Your task to perform on an android device: Open settings on Google Maps Image 0: 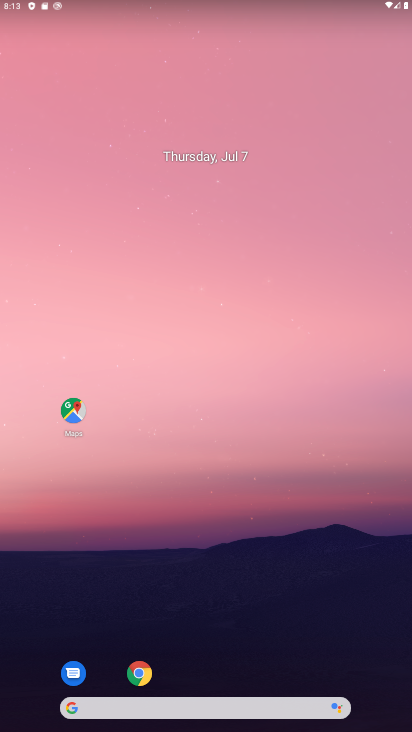
Step 0: drag from (242, 686) to (154, 111)
Your task to perform on an android device: Open settings on Google Maps Image 1: 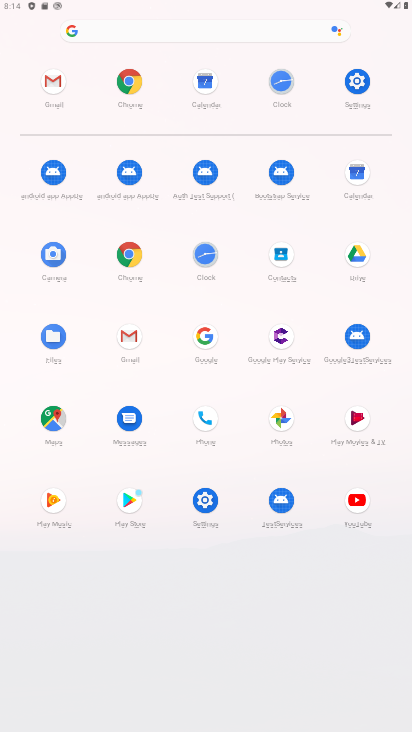
Step 1: click (60, 413)
Your task to perform on an android device: Open settings on Google Maps Image 2: 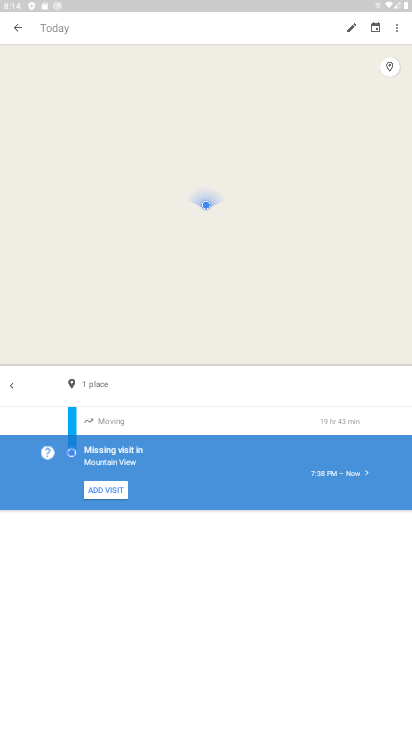
Step 2: click (23, 30)
Your task to perform on an android device: Open settings on Google Maps Image 3: 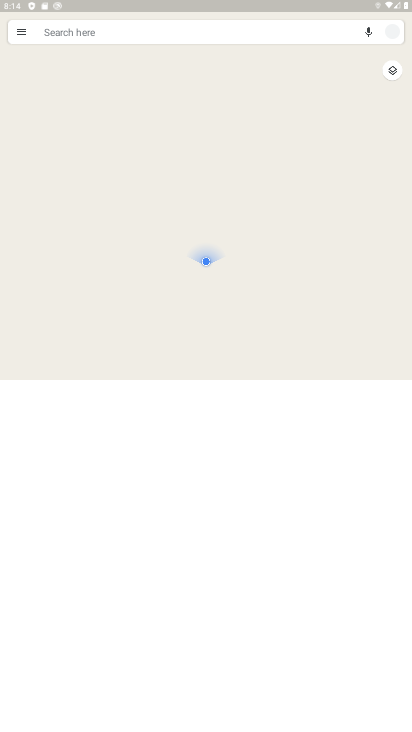
Step 3: click (22, 31)
Your task to perform on an android device: Open settings on Google Maps Image 4: 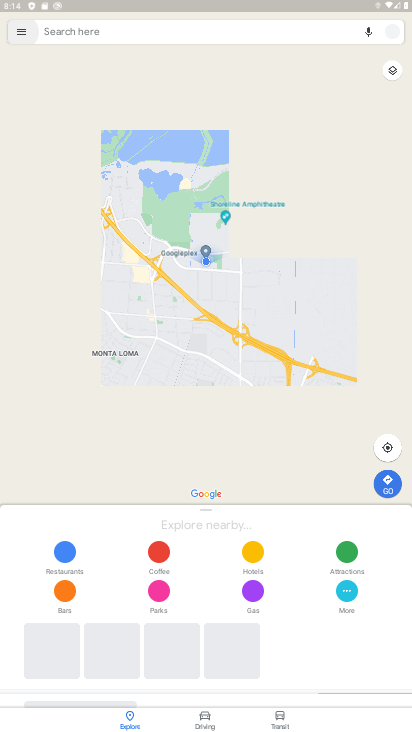
Step 4: click (20, 32)
Your task to perform on an android device: Open settings on Google Maps Image 5: 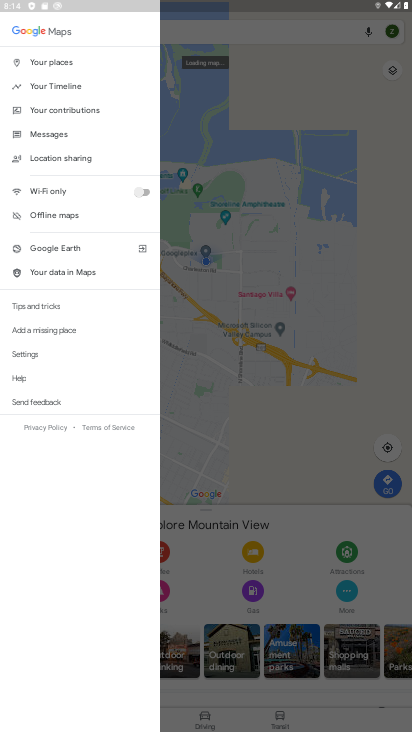
Step 5: click (30, 354)
Your task to perform on an android device: Open settings on Google Maps Image 6: 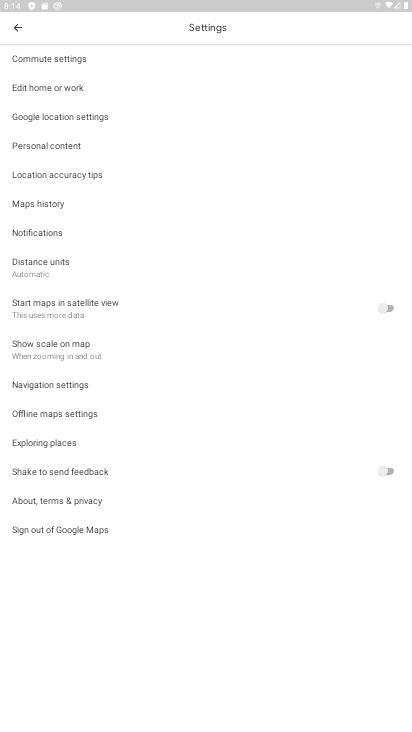
Step 6: task complete